Your task to perform on an android device: add a contact in the contacts app Image 0: 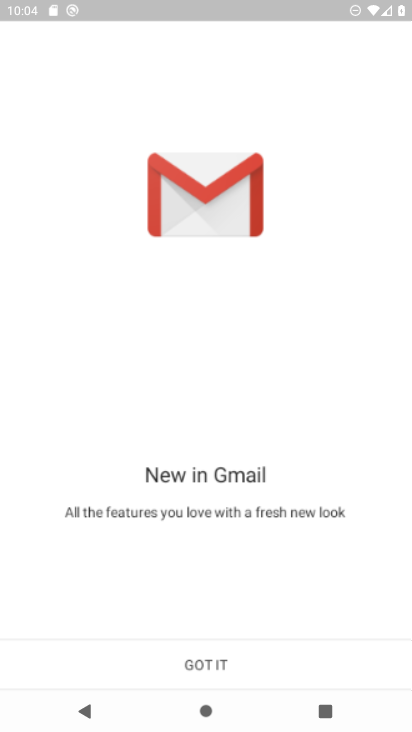
Step 0: press home button
Your task to perform on an android device: add a contact in the contacts app Image 1: 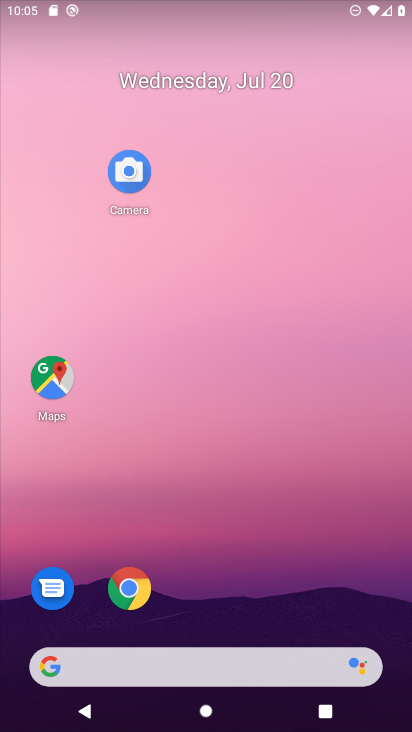
Step 1: drag from (203, 623) to (258, 114)
Your task to perform on an android device: add a contact in the contacts app Image 2: 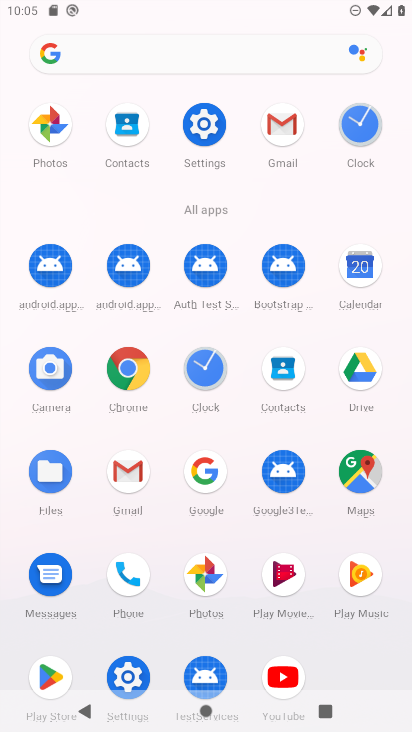
Step 2: click (114, 127)
Your task to perform on an android device: add a contact in the contacts app Image 3: 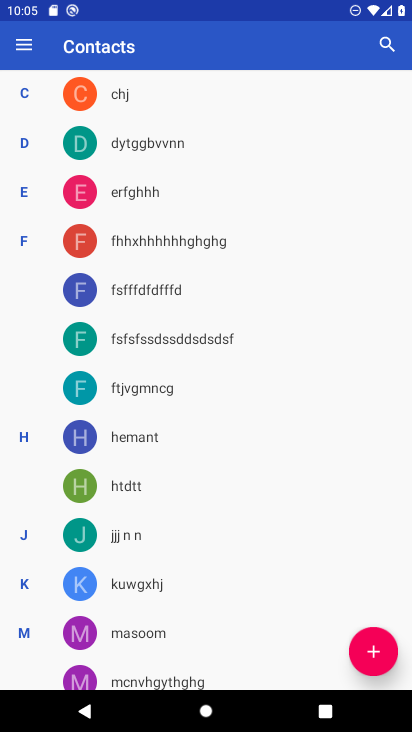
Step 3: click (379, 655)
Your task to perform on an android device: add a contact in the contacts app Image 4: 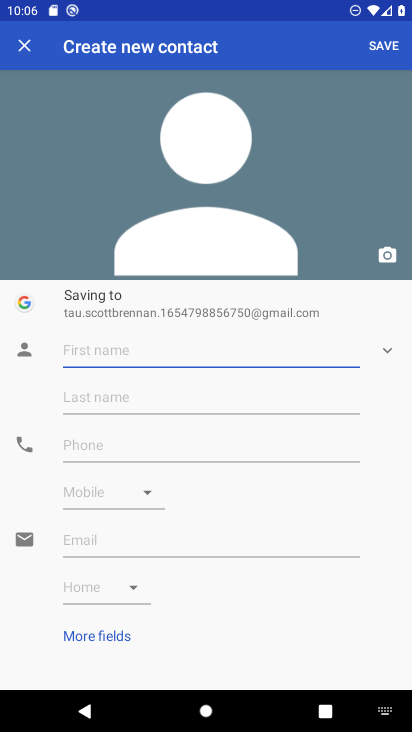
Step 4: type "gfgfgg"
Your task to perform on an android device: add a contact in the contacts app Image 5: 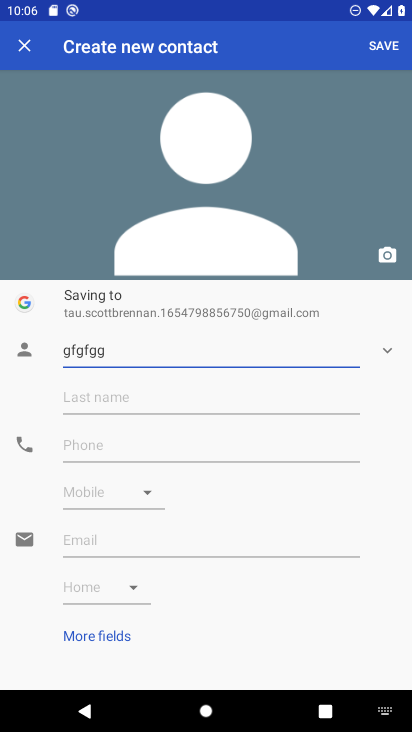
Step 5: click (106, 435)
Your task to perform on an android device: add a contact in the contacts app Image 6: 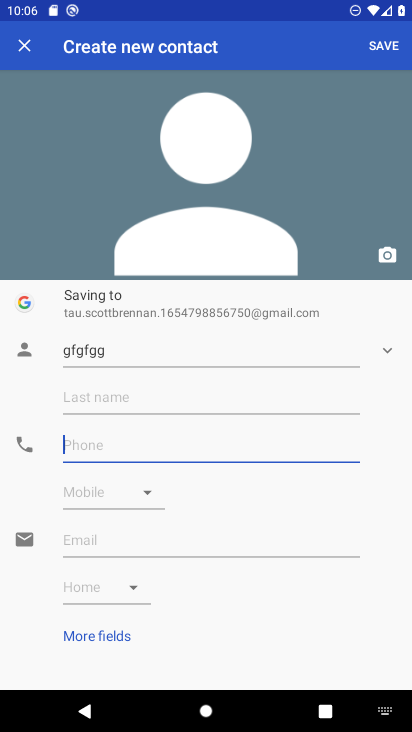
Step 6: type "57555"
Your task to perform on an android device: add a contact in the contacts app Image 7: 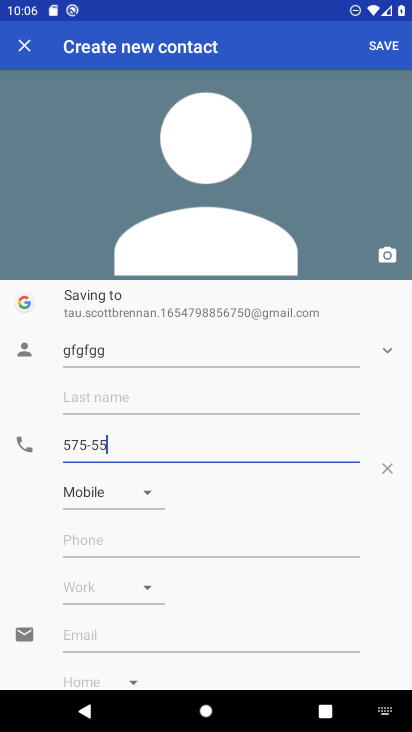
Step 7: click (389, 48)
Your task to perform on an android device: add a contact in the contacts app Image 8: 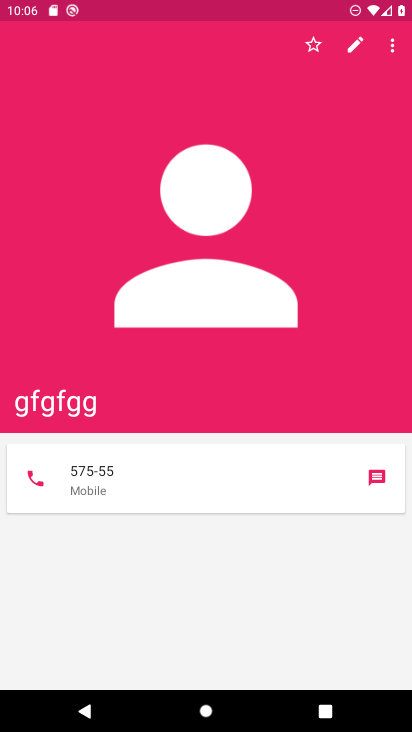
Step 8: task complete